Your task to perform on an android device: turn on javascript in the chrome app Image 0: 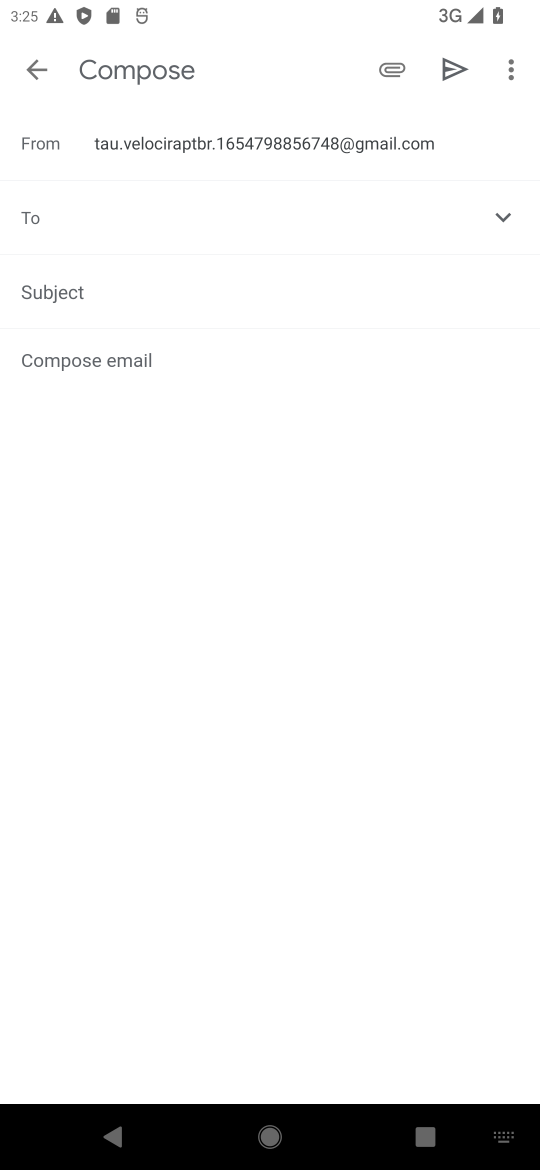
Step 0: press home button
Your task to perform on an android device: turn on javascript in the chrome app Image 1: 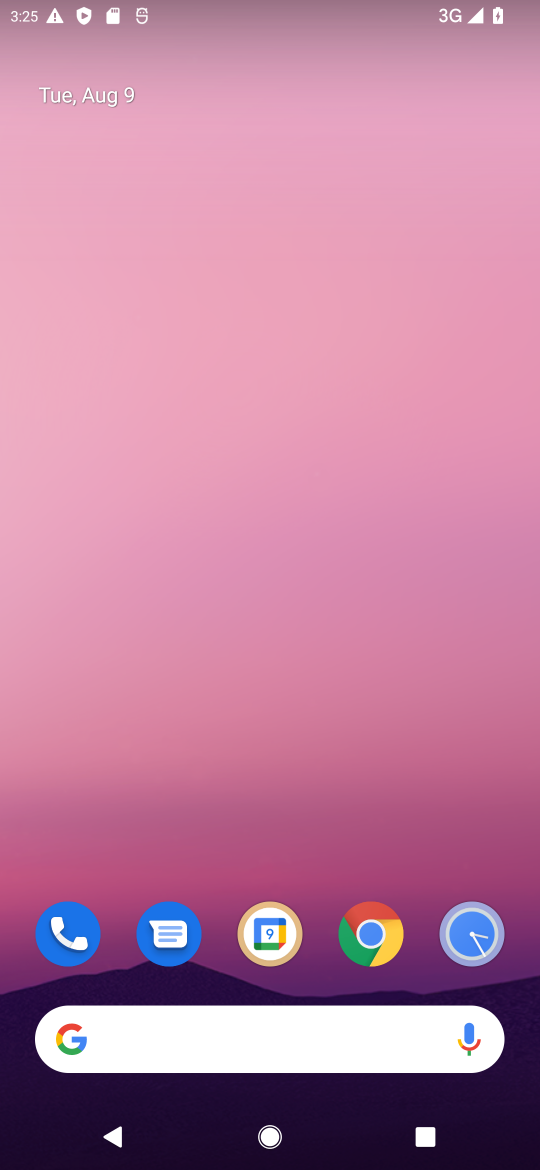
Step 1: click (339, 911)
Your task to perform on an android device: turn on javascript in the chrome app Image 2: 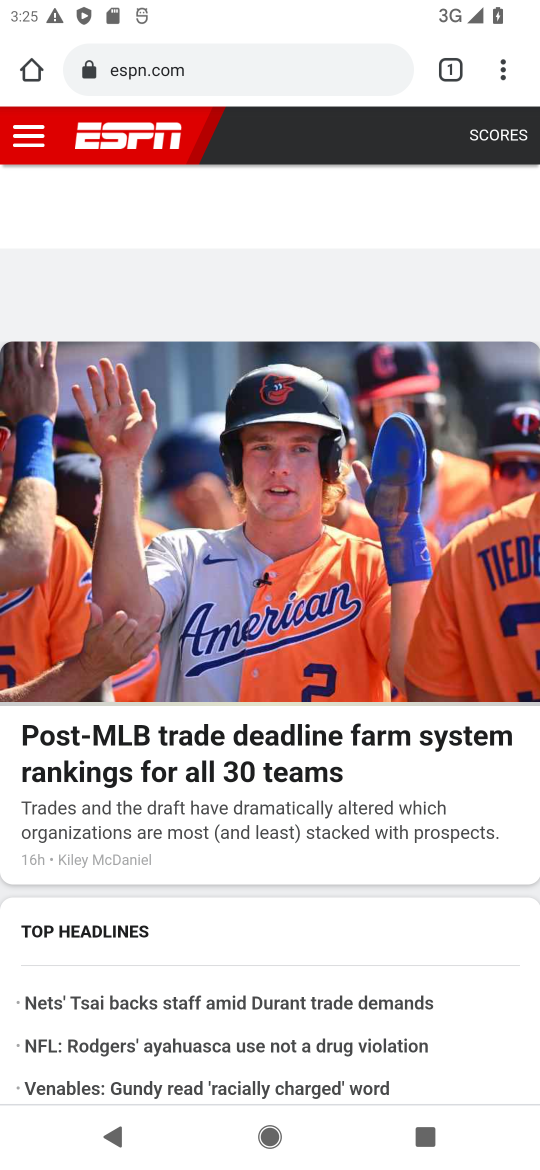
Step 2: click (513, 66)
Your task to perform on an android device: turn on javascript in the chrome app Image 3: 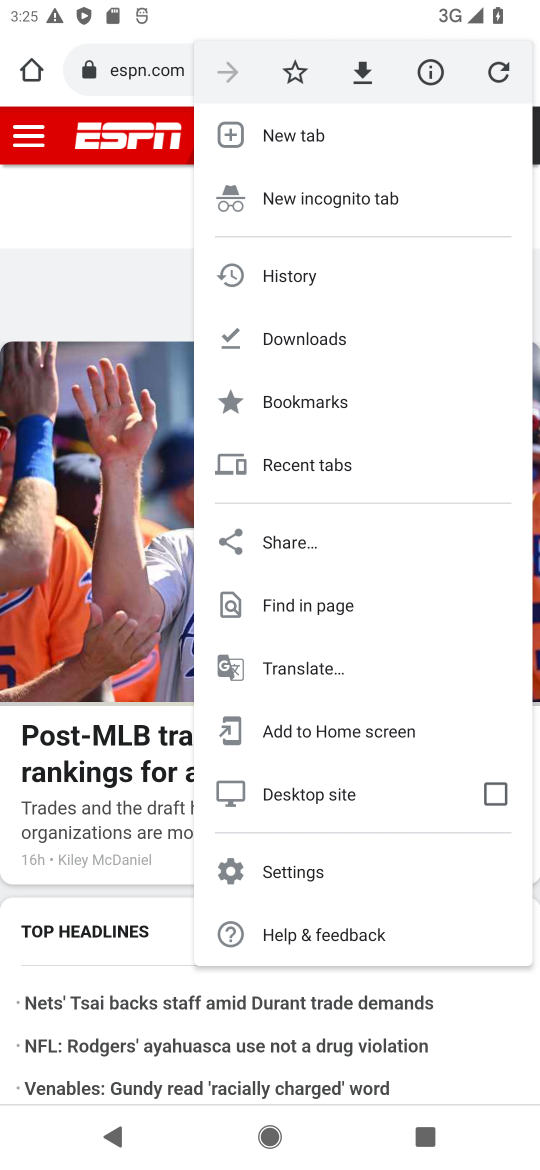
Step 3: click (293, 864)
Your task to perform on an android device: turn on javascript in the chrome app Image 4: 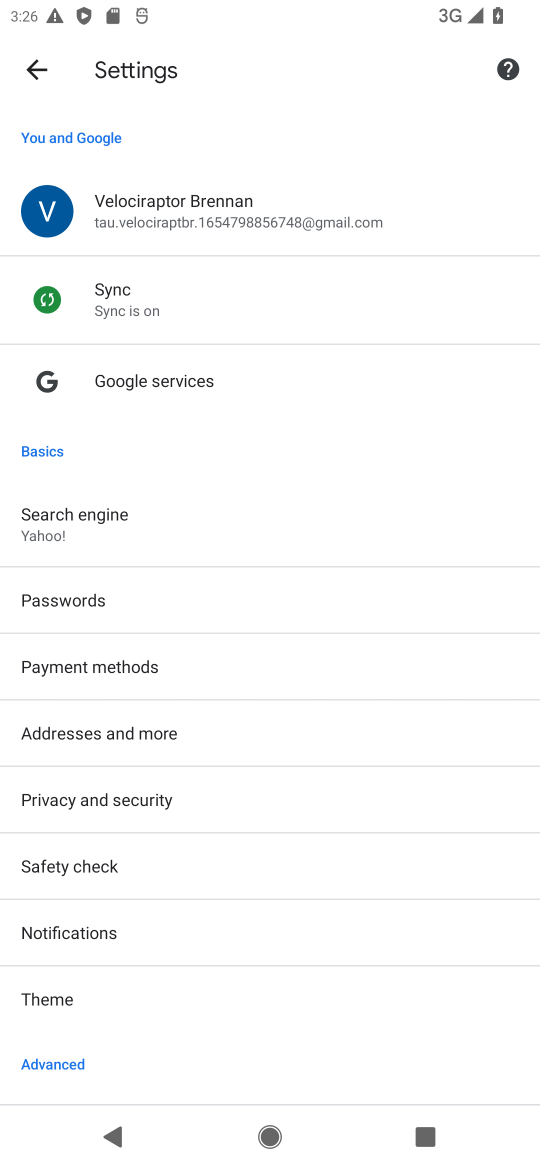
Step 4: task complete